Your task to perform on an android device: Go to internet settings Image 0: 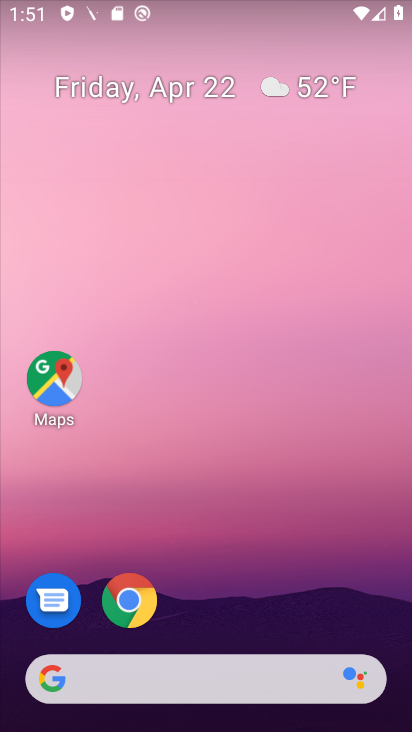
Step 0: drag from (343, 506) to (264, 33)
Your task to perform on an android device: Go to internet settings Image 1: 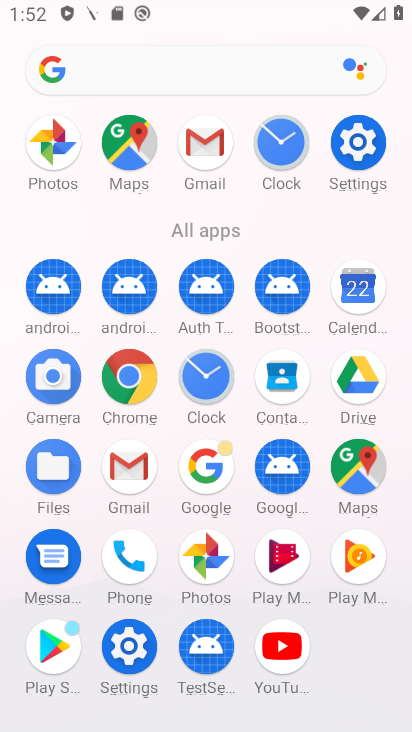
Step 1: drag from (15, 514) to (23, 231)
Your task to perform on an android device: Go to internet settings Image 2: 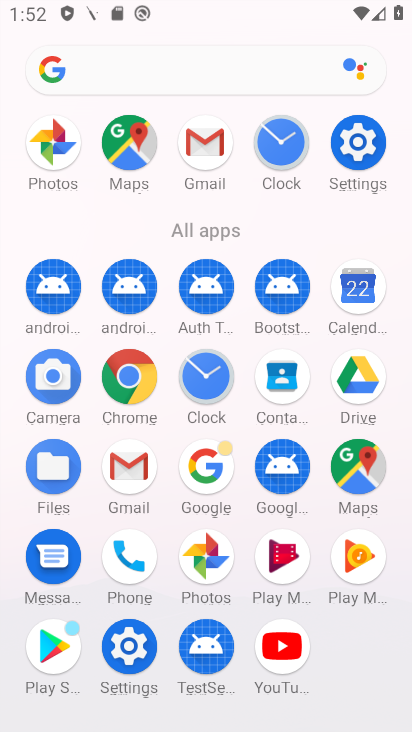
Step 2: drag from (3, 518) to (1, 303)
Your task to perform on an android device: Go to internet settings Image 3: 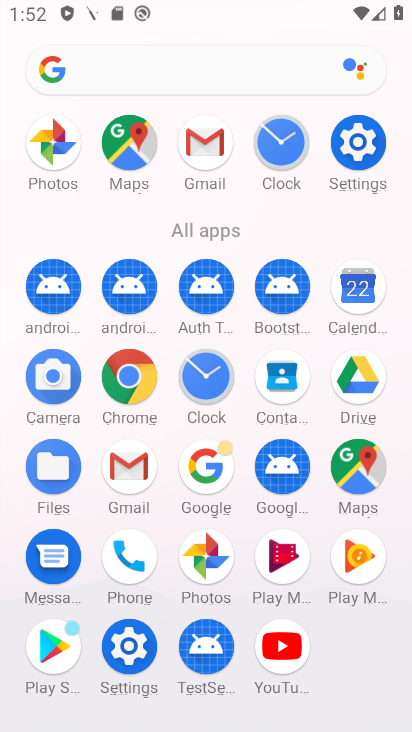
Step 3: click (359, 141)
Your task to perform on an android device: Go to internet settings Image 4: 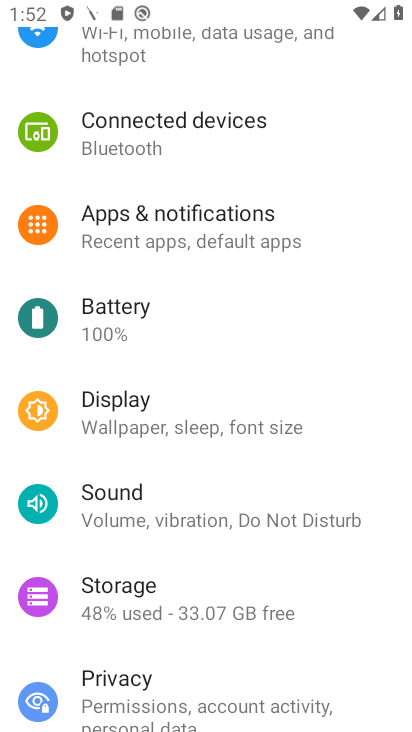
Step 4: drag from (262, 268) to (277, 596)
Your task to perform on an android device: Go to internet settings Image 5: 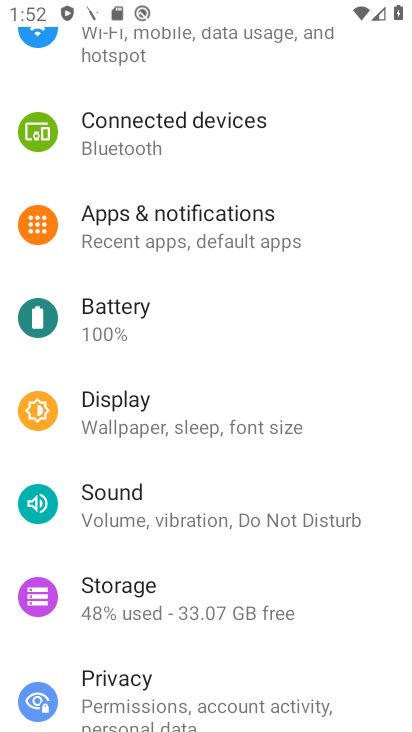
Step 5: drag from (276, 285) to (278, 485)
Your task to perform on an android device: Go to internet settings Image 6: 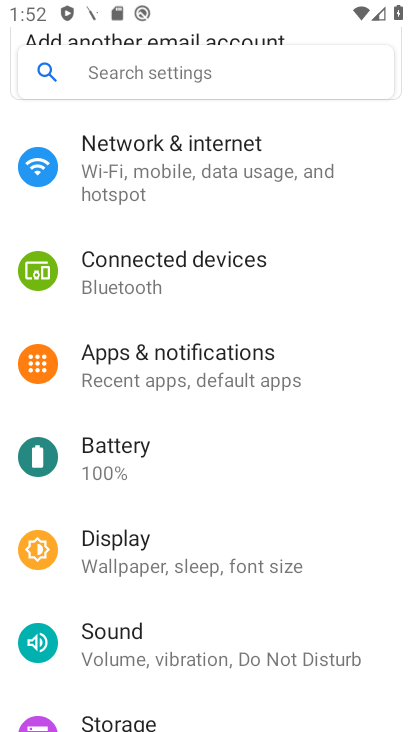
Step 6: click (249, 164)
Your task to perform on an android device: Go to internet settings Image 7: 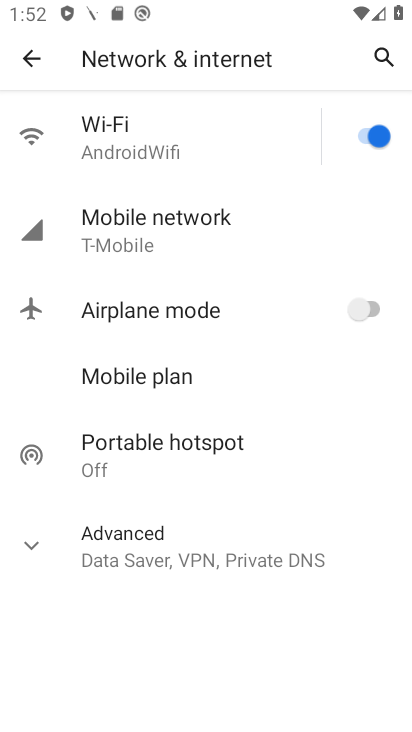
Step 7: click (25, 538)
Your task to perform on an android device: Go to internet settings Image 8: 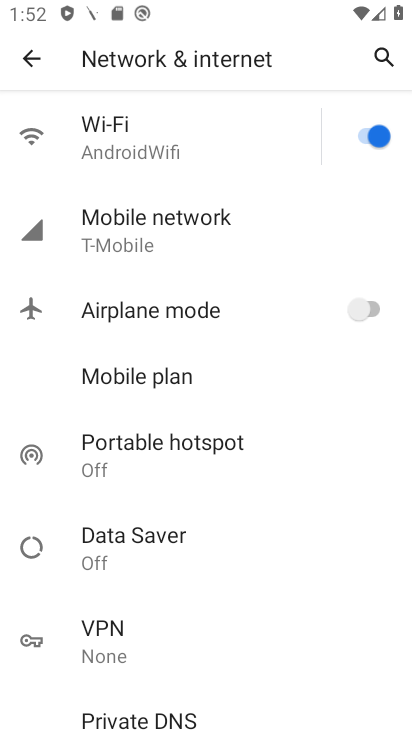
Step 8: task complete